Your task to perform on an android device: Open maps Image 0: 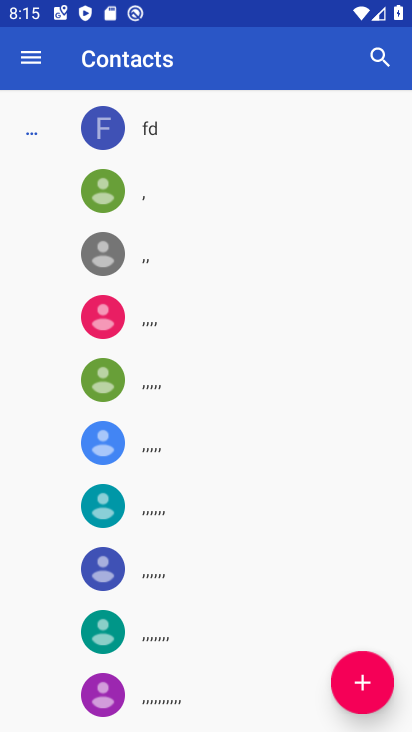
Step 0: press home button
Your task to perform on an android device: Open maps Image 1: 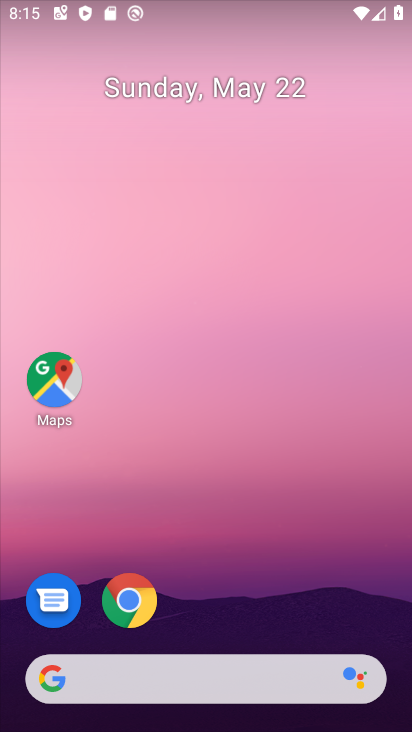
Step 1: drag from (298, 674) to (311, 323)
Your task to perform on an android device: Open maps Image 2: 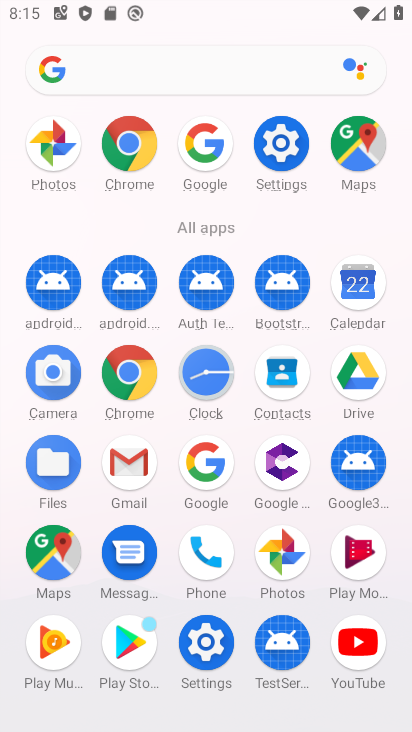
Step 2: click (368, 150)
Your task to perform on an android device: Open maps Image 3: 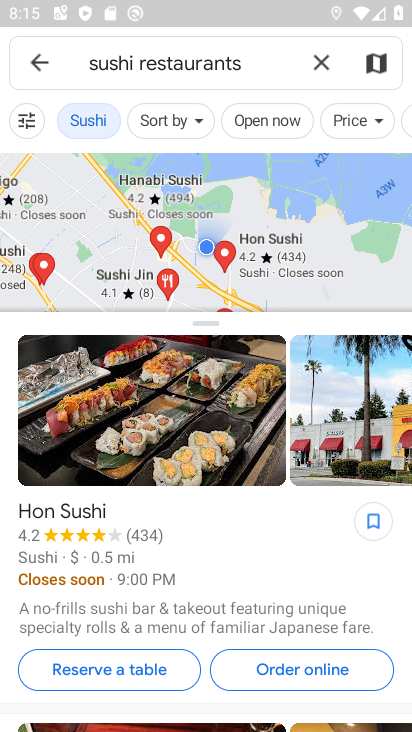
Step 3: task complete